Your task to perform on an android device: Go to Yahoo.com Image 0: 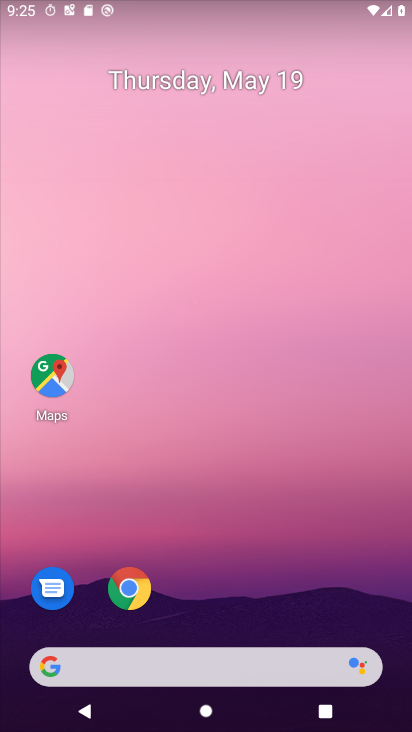
Step 0: press home button
Your task to perform on an android device: Go to Yahoo.com Image 1: 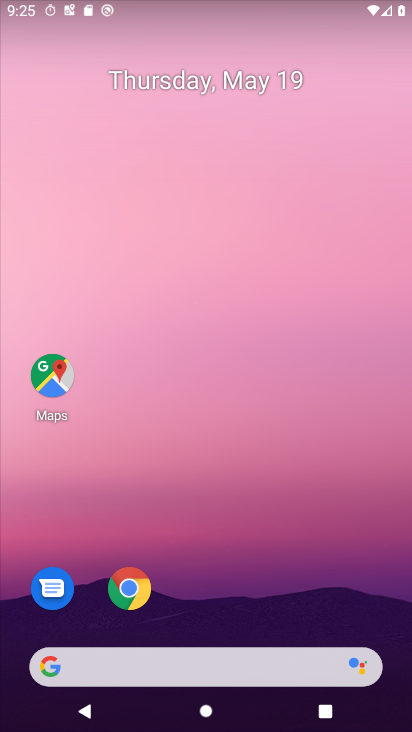
Step 1: click (139, 591)
Your task to perform on an android device: Go to Yahoo.com Image 2: 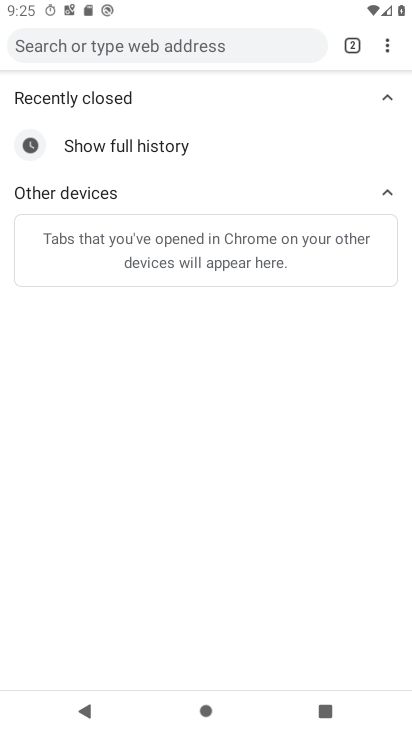
Step 2: click (133, 596)
Your task to perform on an android device: Go to Yahoo.com Image 3: 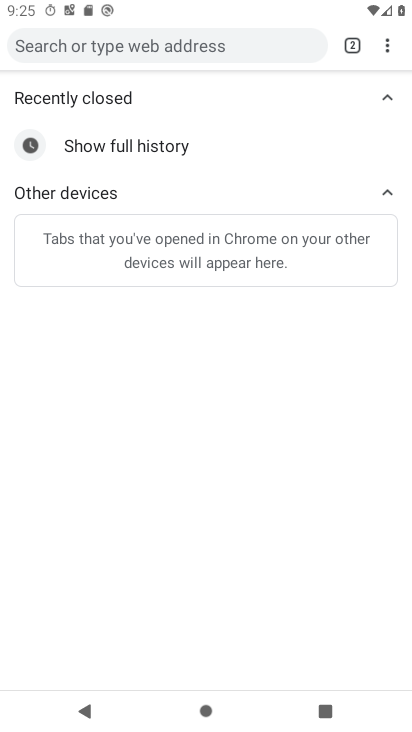
Step 3: drag from (386, 47) to (305, 90)
Your task to perform on an android device: Go to Yahoo.com Image 4: 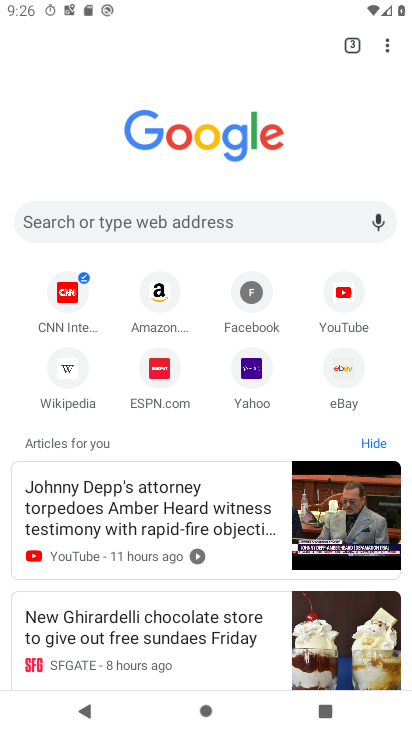
Step 4: click (256, 369)
Your task to perform on an android device: Go to Yahoo.com Image 5: 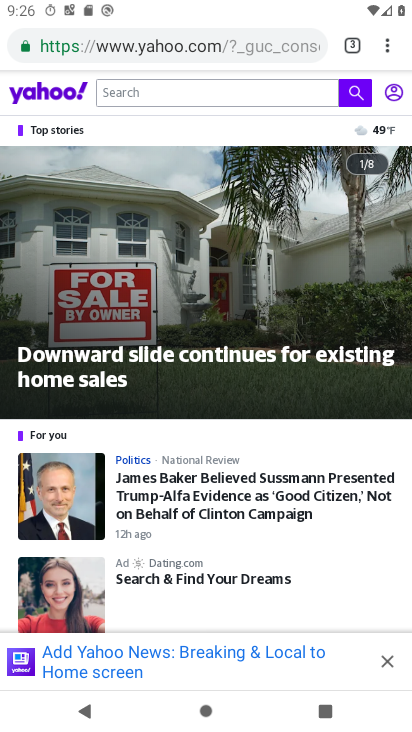
Step 5: task complete